Your task to perform on an android device: turn off wifi Image 0: 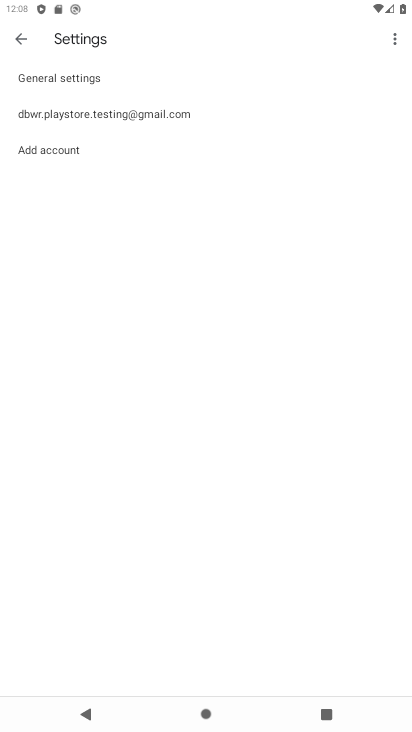
Step 0: press home button
Your task to perform on an android device: turn off wifi Image 1: 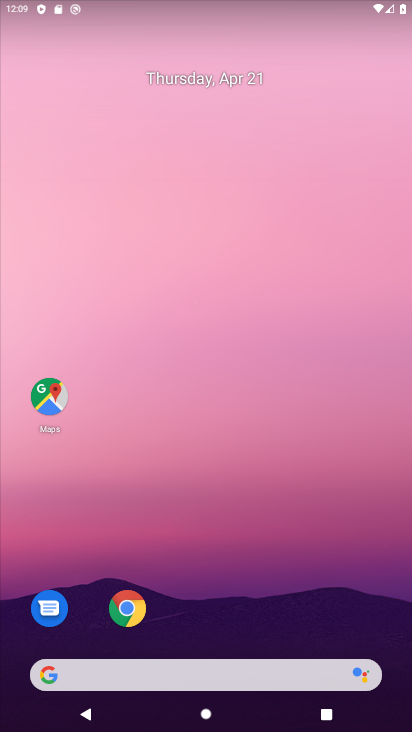
Step 1: drag from (232, 624) to (220, 108)
Your task to perform on an android device: turn off wifi Image 2: 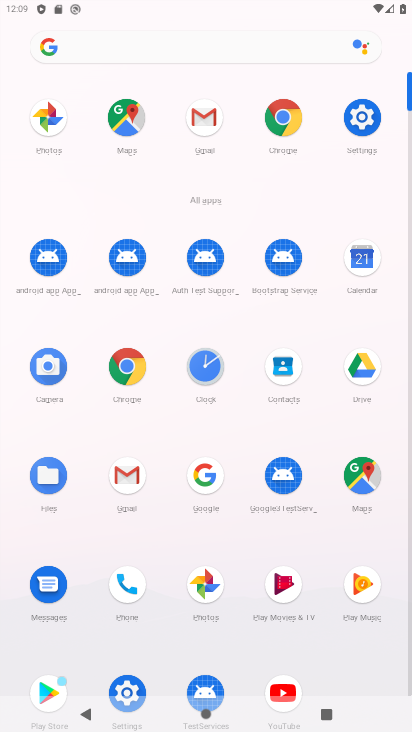
Step 2: click (355, 107)
Your task to perform on an android device: turn off wifi Image 3: 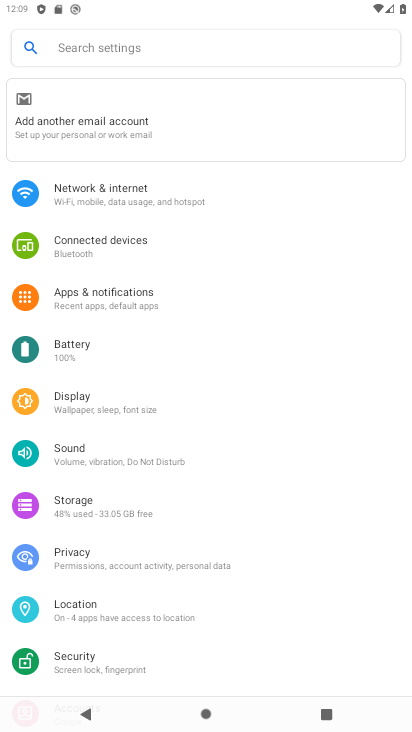
Step 3: click (136, 190)
Your task to perform on an android device: turn off wifi Image 4: 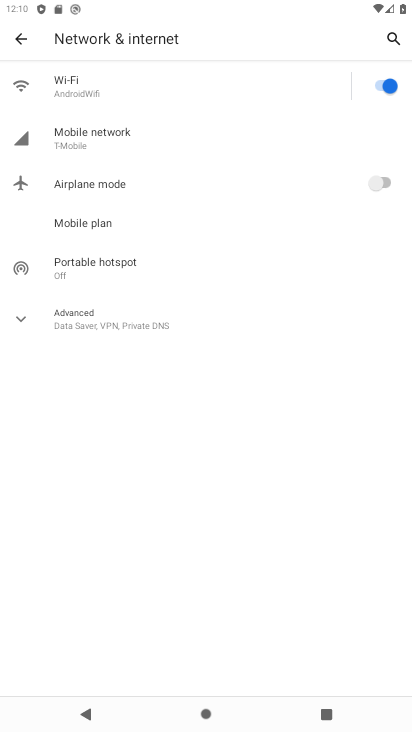
Step 4: click (379, 86)
Your task to perform on an android device: turn off wifi Image 5: 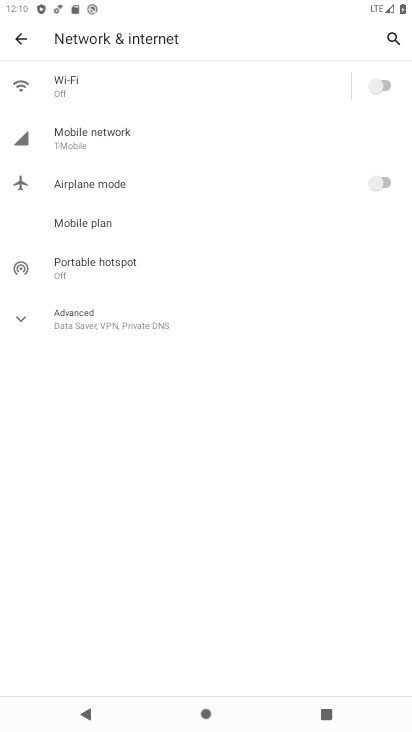
Step 5: task complete